Your task to perform on an android device: Open eBay Image 0: 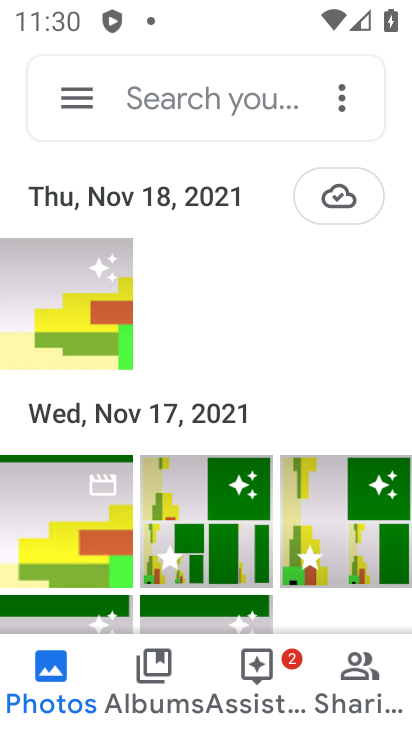
Step 0: press home button
Your task to perform on an android device: Open eBay Image 1: 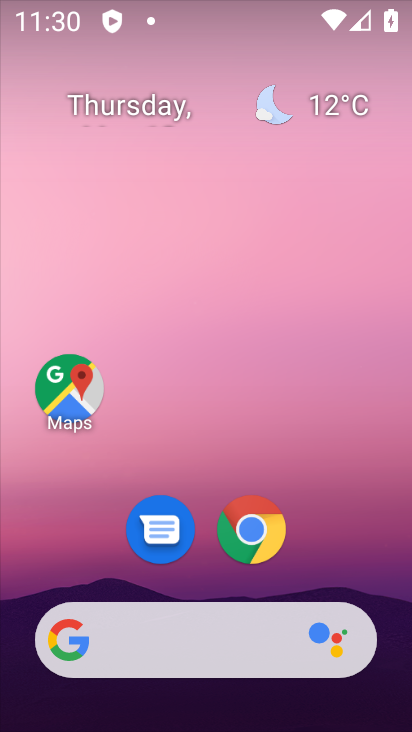
Step 1: drag from (308, 498) to (276, 198)
Your task to perform on an android device: Open eBay Image 2: 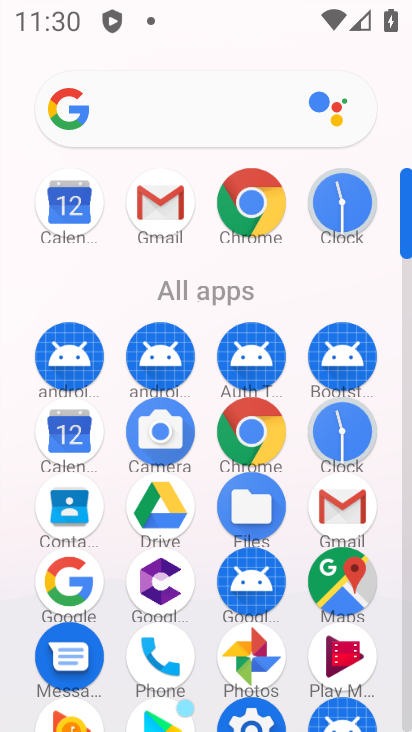
Step 2: click (257, 199)
Your task to perform on an android device: Open eBay Image 3: 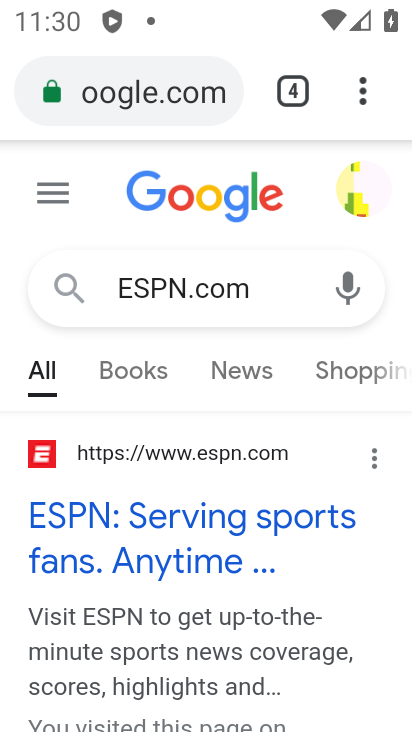
Step 3: click (356, 93)
Your task to perform on an android device: Open eBay Image 4: 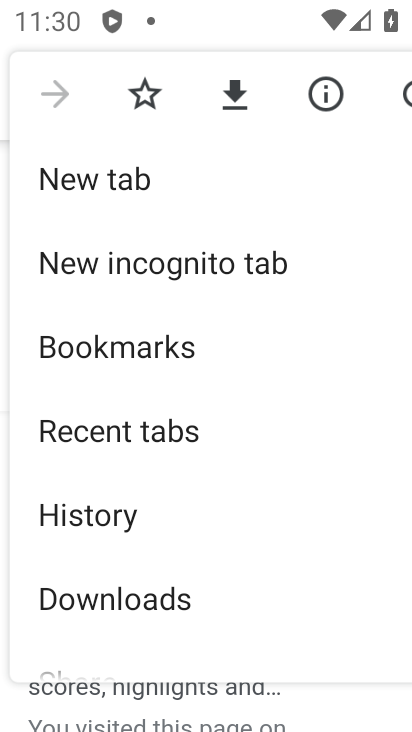
Step 4: click (138, 169)
Your task to perform on an android device: Open eBay Image 5: 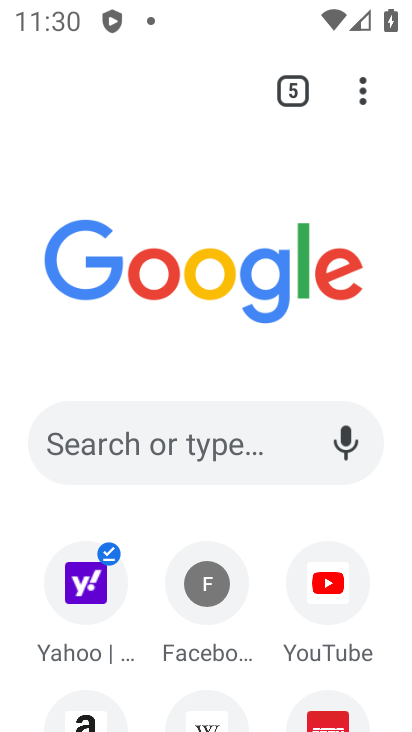
Step 5: click (91, 408)
Your task to perform on an android device: Open eBay Image 6: 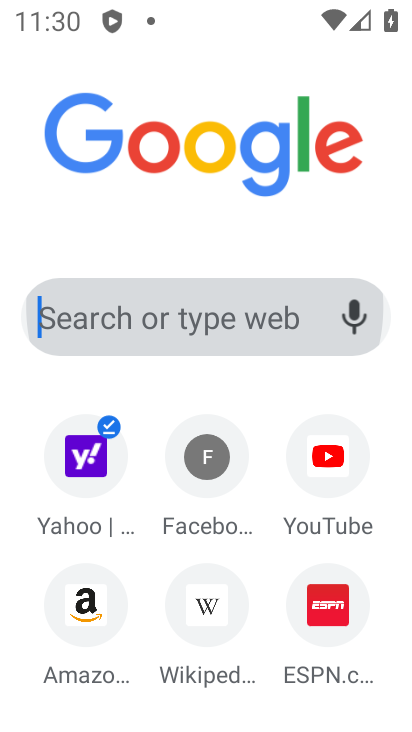
Step 6: click (117, 453)
Your task to perform on an android device: Open eBay Image 7: 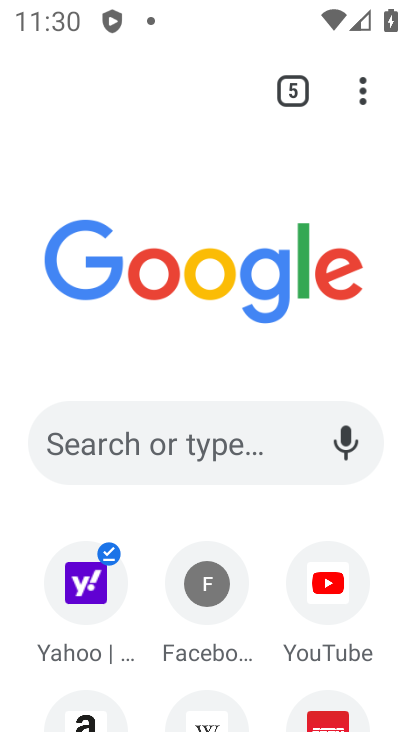
Step 7: type " eBay"
Your task to perform on an android device: Open eBay Image 8: 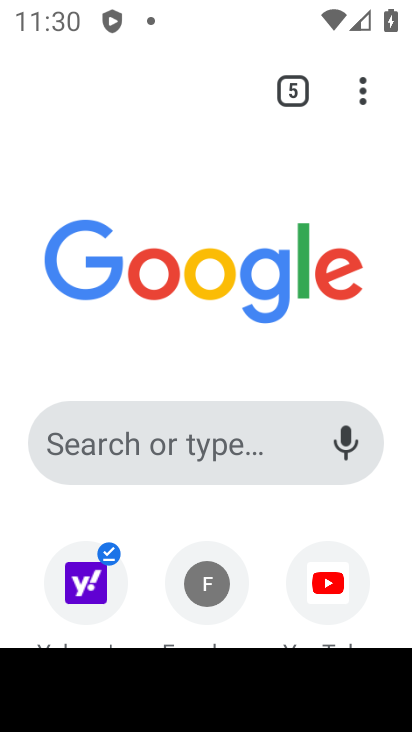
Step 8: click (185, 431)
Your task to perform on an android device: Open eBay Image 9: 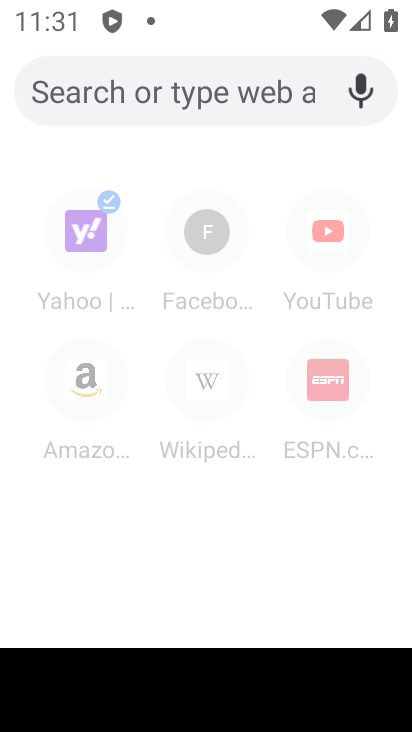
Step 9: click (155, 84)
Your task to perform on an android device: Open eBay Image 10: 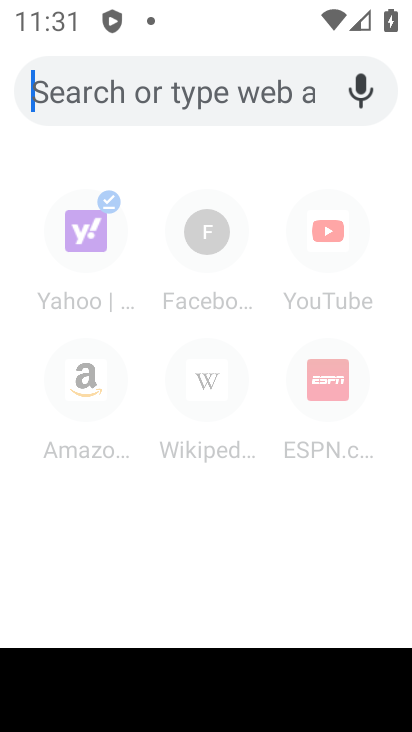
Step 10: type "eBay"
Your task to perform on an android device: Open eBay Image 11: 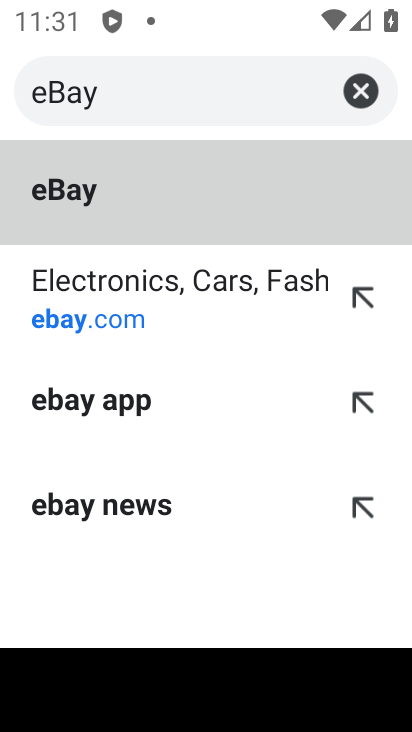
Step 11: click (146, 169)
Your task to perform on an android device: Open eBay Image 12: 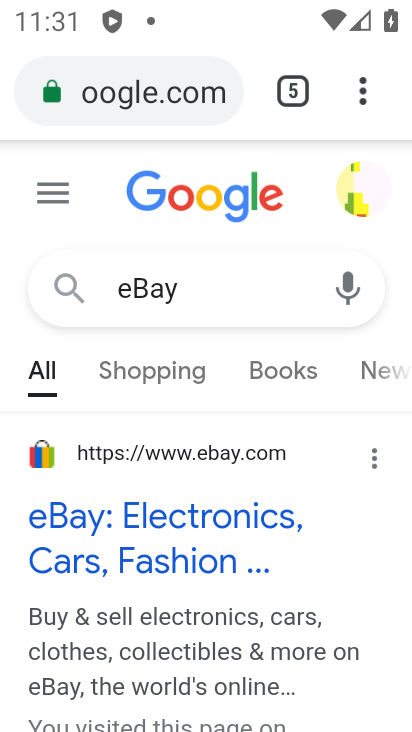
Step 12: task complete